Your task to perform on an android device: Open Yahoo.com Image 0: 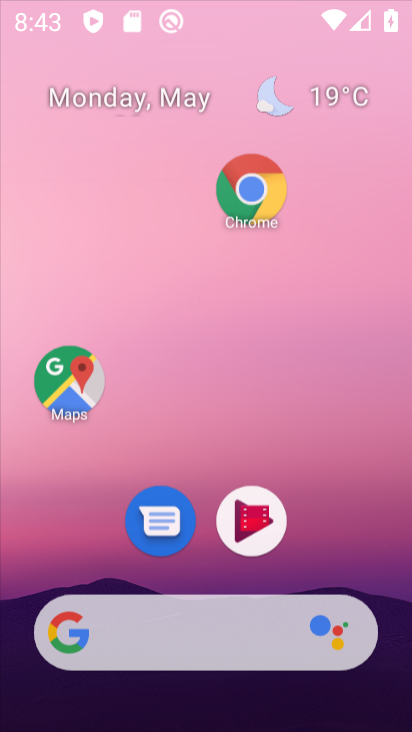
Step 0: click (183, 0)
Your task to perform on an android device: Open Yahoo.com Image 1: 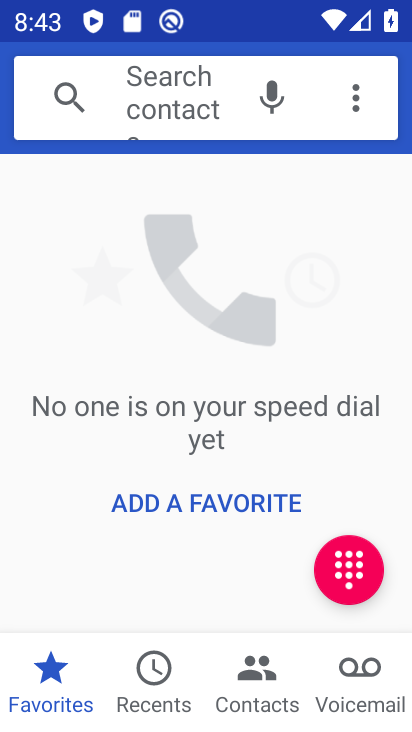
Step 1: press home button
Your task to perform on an android device: Open Yahoo.com Image 2: 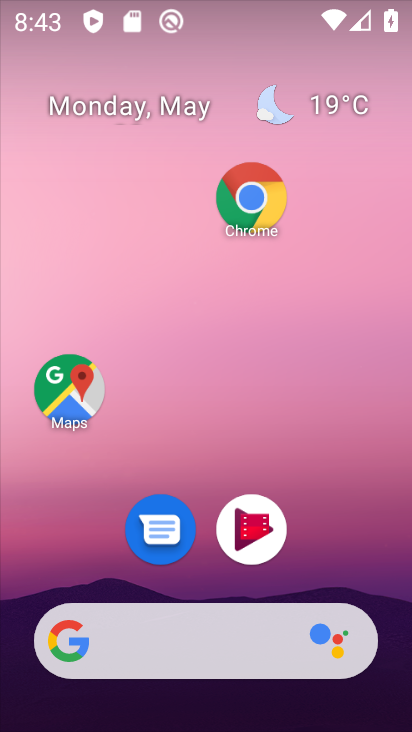
Step 2: click (251, 230)
Your task to perform on an android device: Open Yahoo.com Image 3: 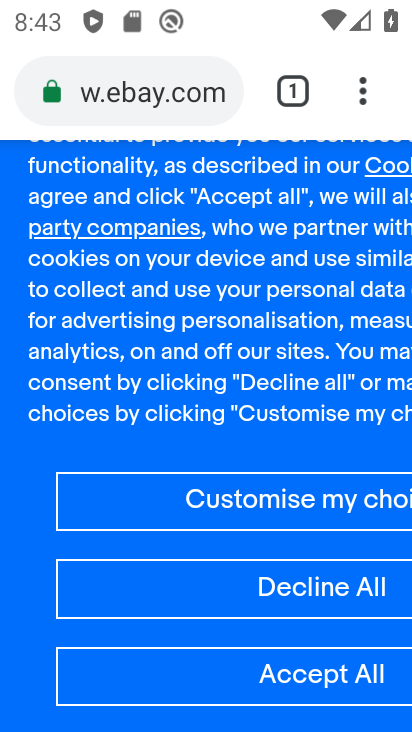
Step 3: click (199, 89)
Your task to perform on an android device: Open Yahoo.com Image 4: 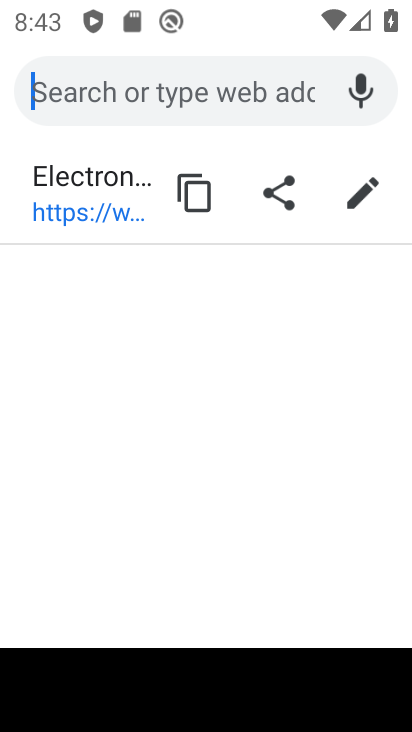
Step 4: type "www.yahoo.com"
Your task to perform on an android device: Open Yahoo.com Image 5: 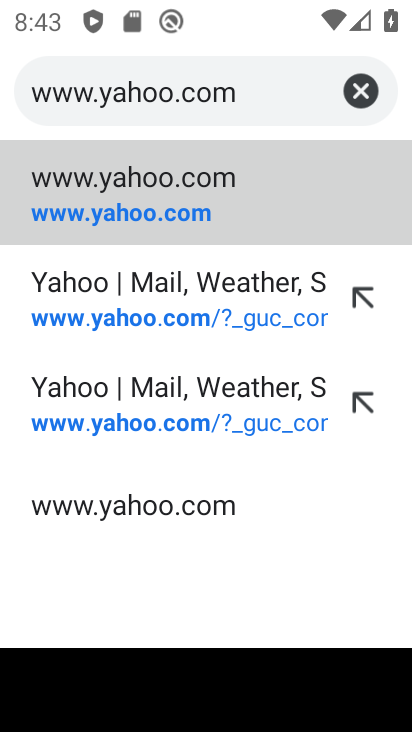
Step 5: click (177, 211)
Your task to perform on an android device: Open Yahoo.com Image 6: 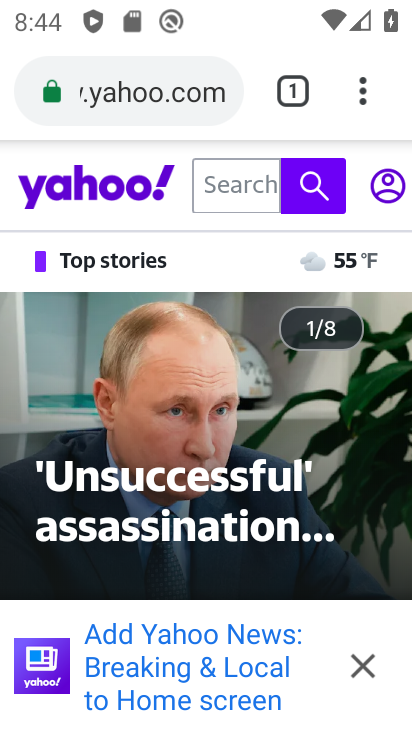
Step 6: task complete